Your task to perform on an android device: empty trash in the gmail app Image 0: 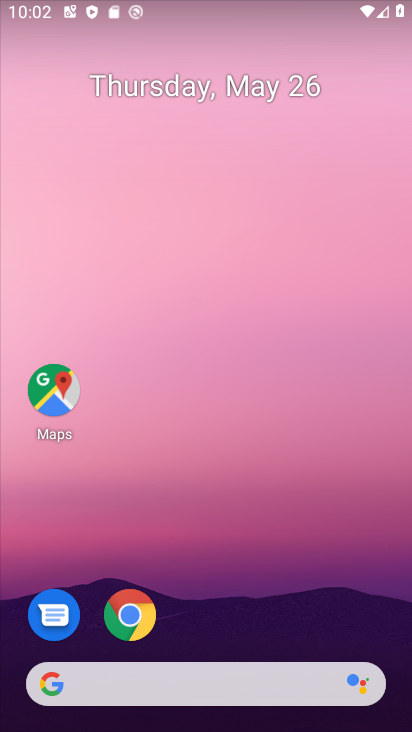
Step 0: drag from (270, 693) to (306, 41)
Your task to perform on an android device: empty trash in the gmail app Image 1: 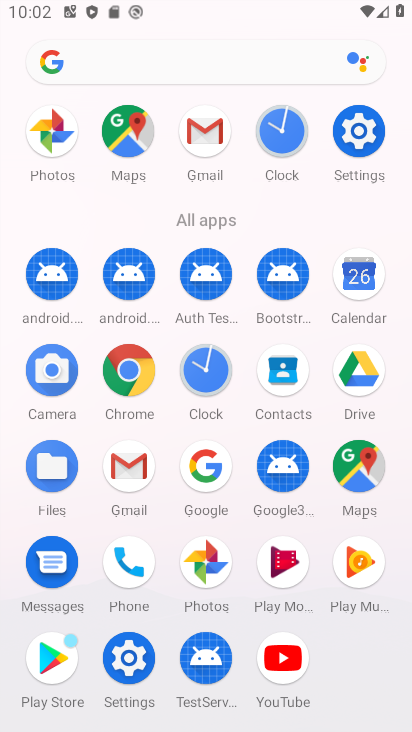
Step 1: click (124, 468)
Your task to perform on an android device: empty trash in the gmail app Image 2: 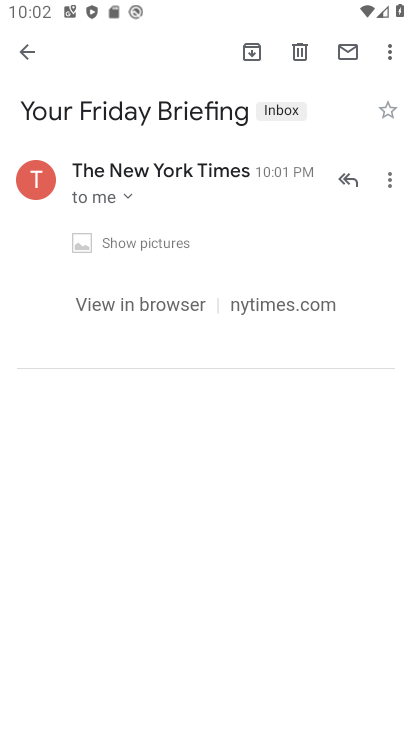
Step 2: press back button
Your task to perform on an android device: empty trash in the gmail app Image 3: 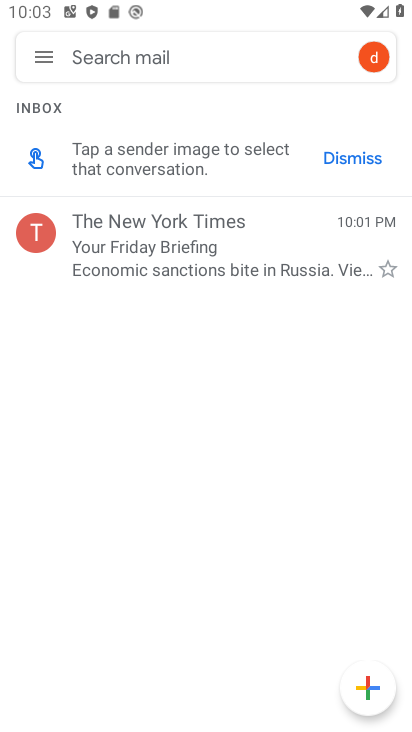
Step 3: click (38, 56)
Your task to perform on an android device: empty trash in the gmail app Image 4: 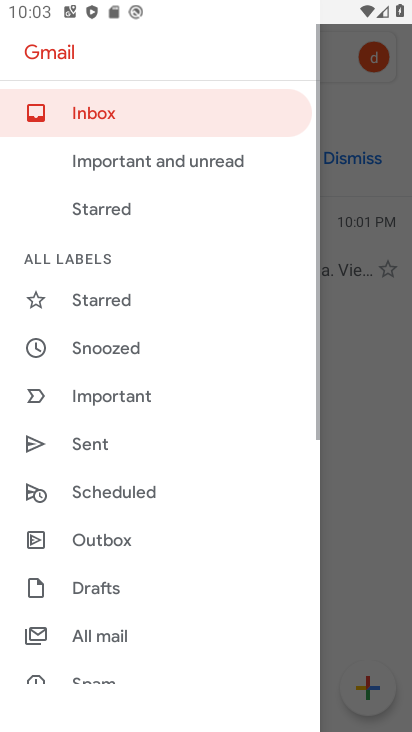
Step 4: drag from (189, 592) to (199, 166)
Your task to perform on an android device: empty trash in the gmail app Image 5: 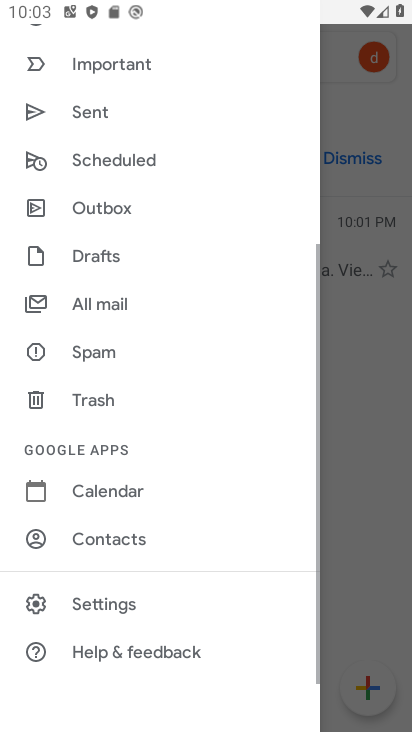
Step 5: click (123, 397)
Your task to perform on an android device: empty trash in the gmail app Image 6: 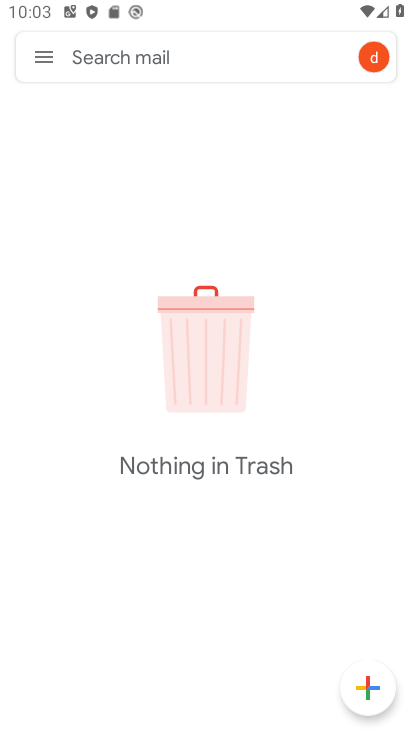
Step 6: task complete